Your task to perform on an android device: Open settings Image 0: 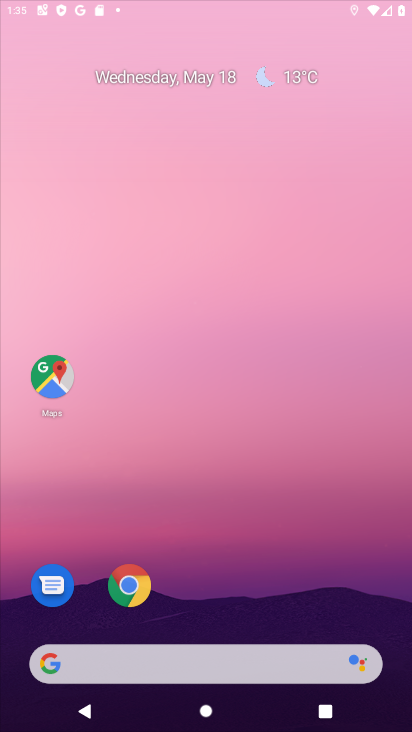
Step 0: click (327, 139)
Your task to perform on an android device: Open settings Image 1: 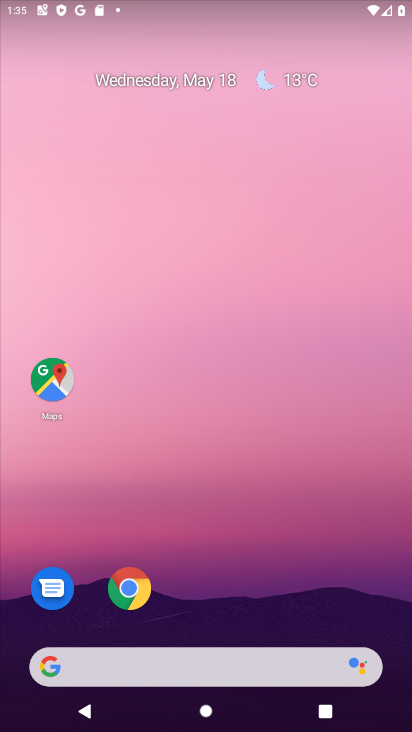
Step 1: drag from (202, 624) to (199, 88)
Your task to perform on an android device: Open settings Image 2: 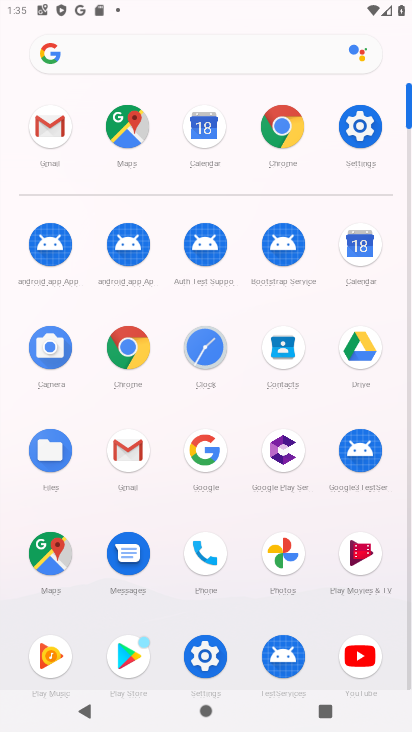
Step 2: click (354, 135)
Your task to perform on an android device: Open settings Image 3: 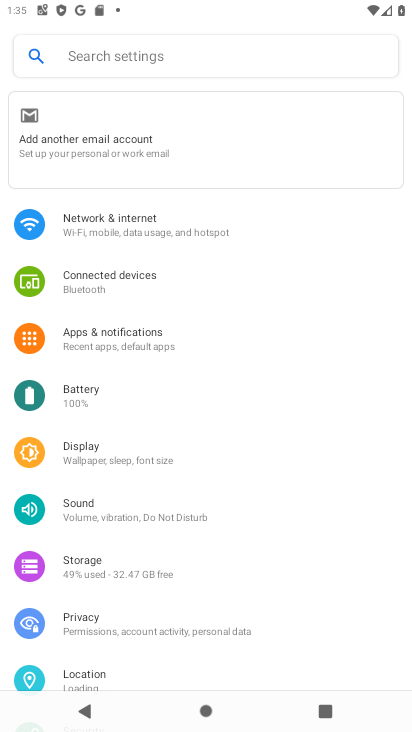
Step 3: task complete